Your task to perform on an android device: Search for hotels in Tokyo Image 0: 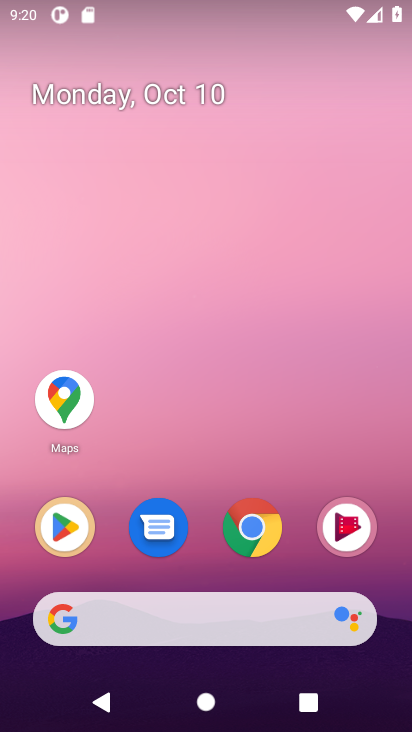
Step 0: click (246, 539)
Your task to perform on an android device: Search for hotels in Tokyo Image 1: 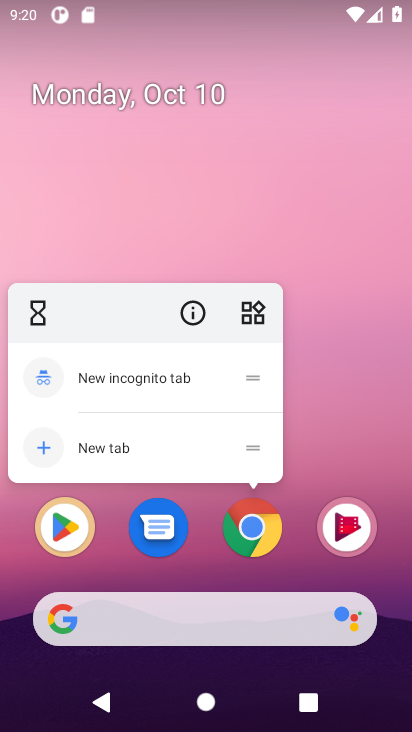
Step 1: click (276, 532)
Your task to perform on an android device: Search for hotels in Tokyo Image 2: 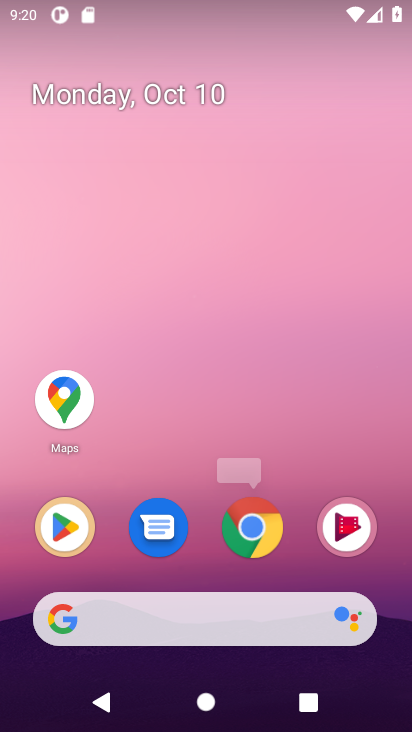
Step 2: click (276, 532)
Your task to perform on an android device: Search for hotels in Tokyo Image 3: 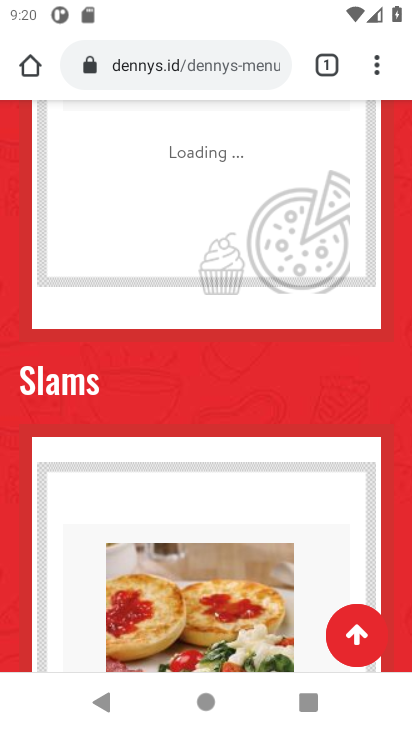
Step 3: click (241, 54)
Your task to perform on an android device: Search for hotels in Tokyo Image 4: 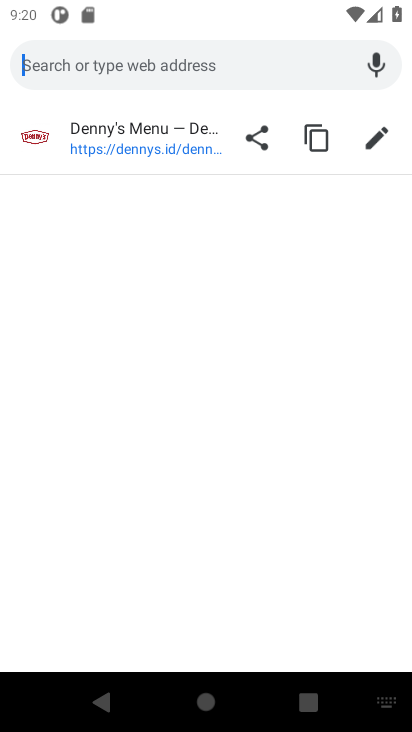
Step 4: type "hotels in Tokyo"
Your task to perform on an android device: Search for hotels in Tokyo Image 5: 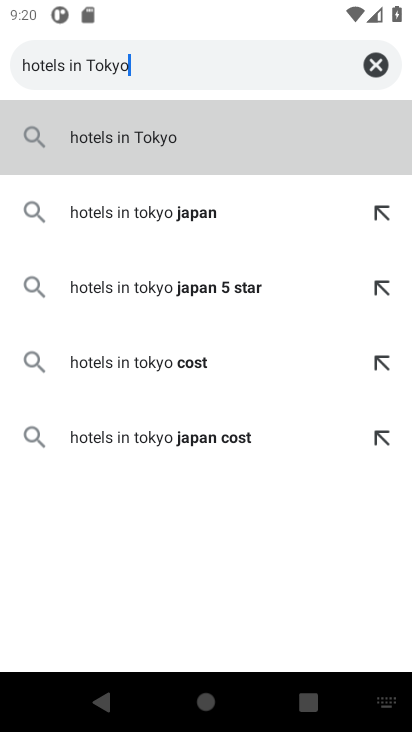
Step 5: type ""
Your task to perform on an android device: Search for hotels in Tokyo Image 6: 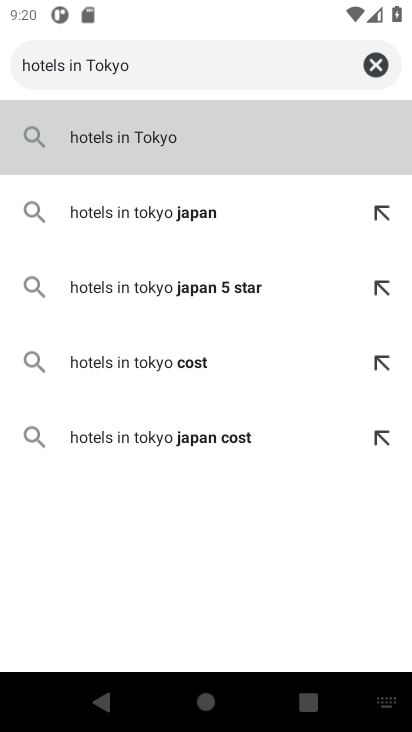
Step 6: click (237, 141)
Your task to perform on an android device: Search for hotels in Tokyo Image 7: 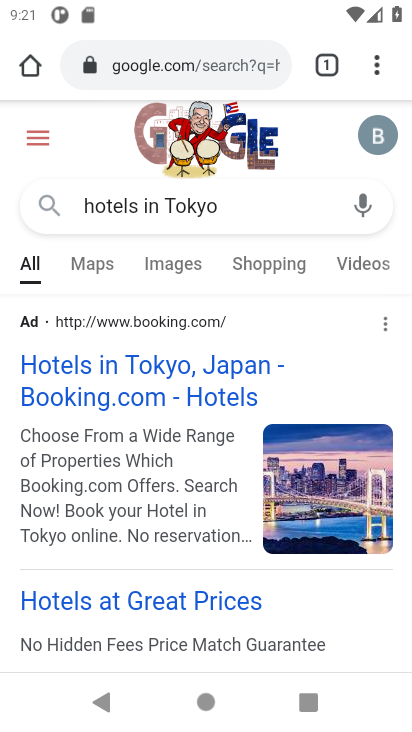
Step 7: drag from (184, 609) to (228, 301)
Your task to perform on an android device: Search for hotels in Tokyo Image 8: 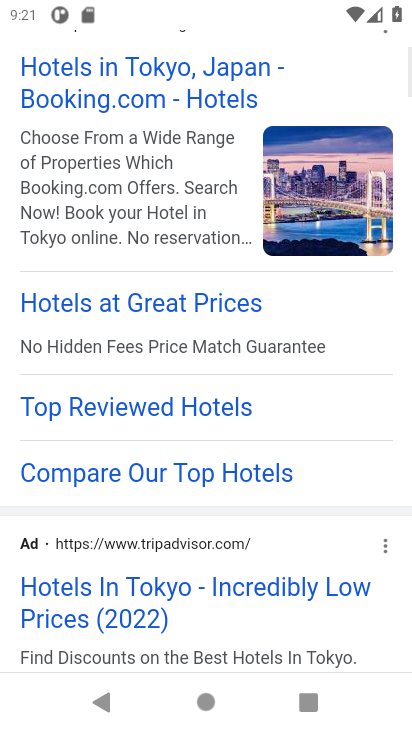
Step 8: drag from (242, 619) to (295, 342)
Your task to perform on an android device: Search for hotels in Tokyo Image 9: 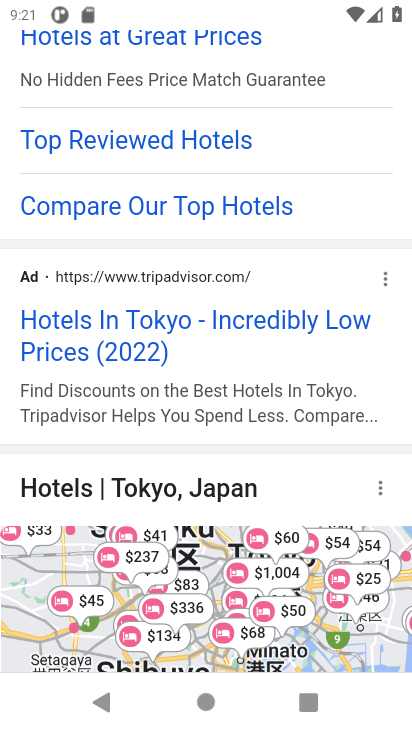
Step 9: drag from (229, 582) to (281, 296)
Your task to perform on an android device: Search for hotels in Tokyo Image 10: 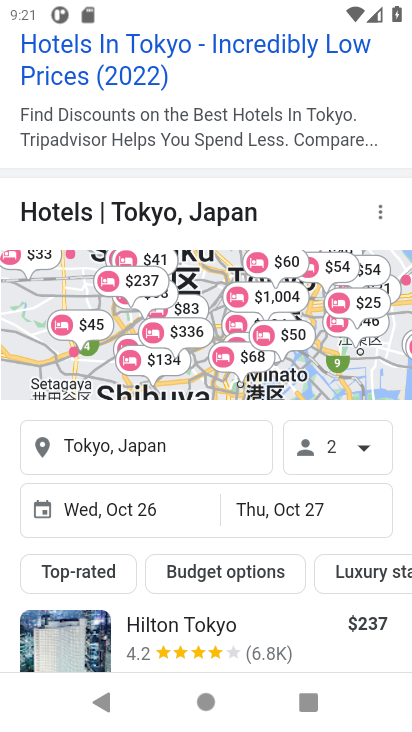
Step 10: click (168, 65)
Your task to perform on an android device: Search for hotels in Tokyo Image 11: 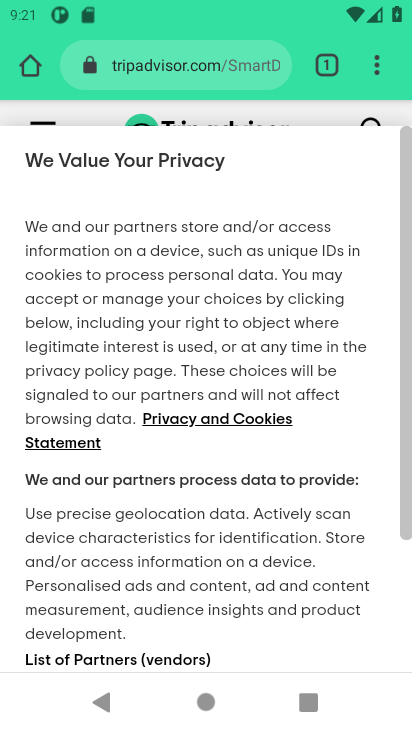
Step 11: drag from (265, 529) to (317, 203)
Your task to perform on an android device: Search for hotels in Tokyo Image 12: 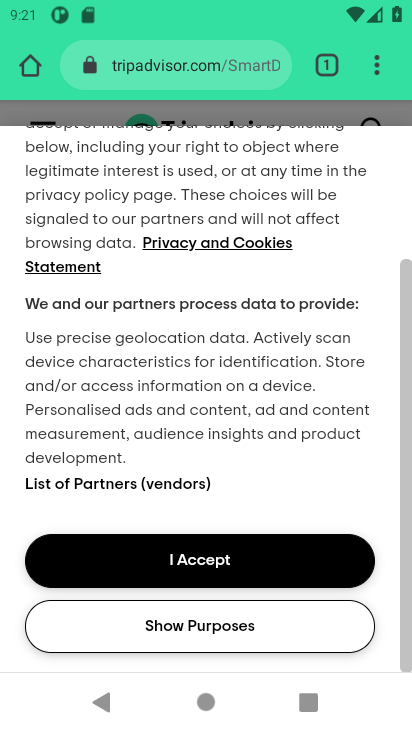
Step 12: click (175, 530)
Your task to perform on an android device: Search for hotels in Tokyo Image 13: 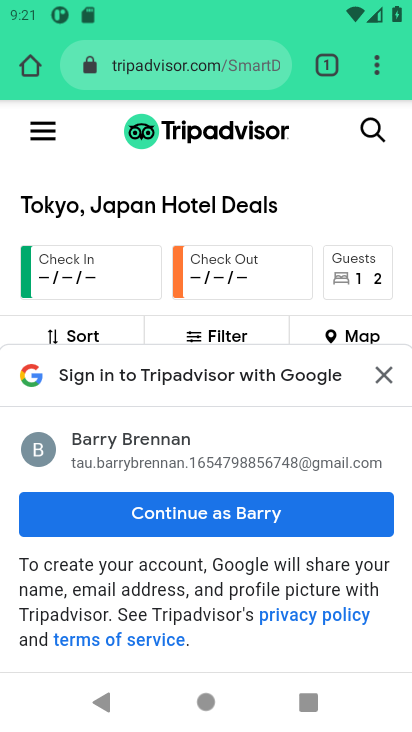
Step 13: drag from (274, 662) to (344, 434)
Your task to perform on an android device: Search for hotels in Tokyo Image 14: 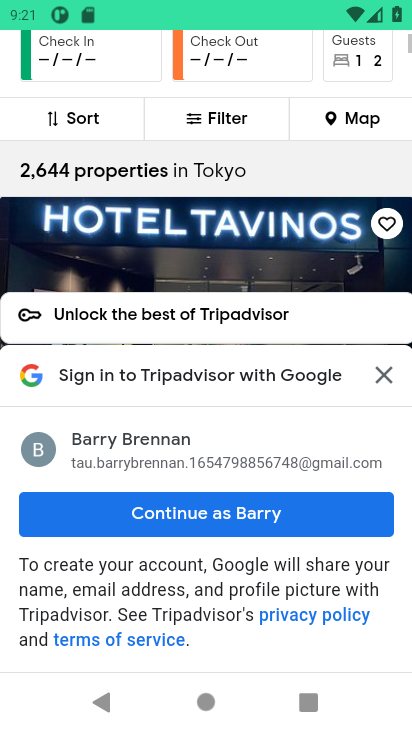
Step 14: click (284, 507)
Your task to perform on an android device: Search for hotels in Tokyo Image 15: 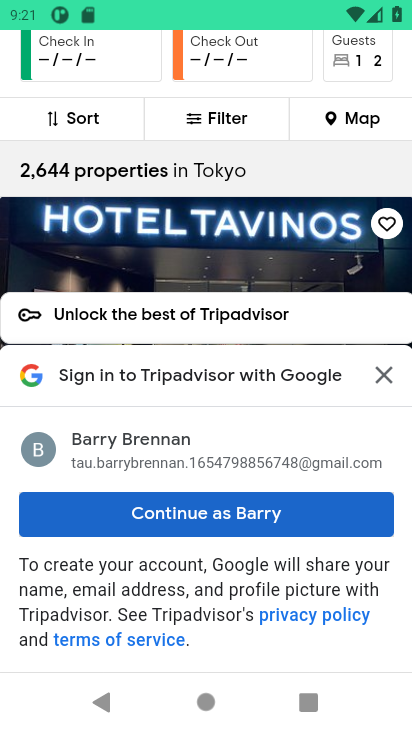
Step 15: click (284, 507)
Your task to perform on an android device: Search for hotels in Tokyo Image 16: 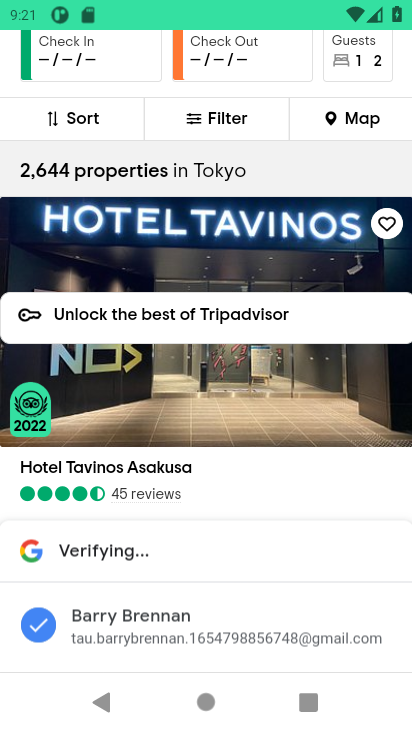
Step 16: drag from (245, 480) to (262, 154)
Your task to perform on an android device: Search for hotels in Tokyo Image 17: 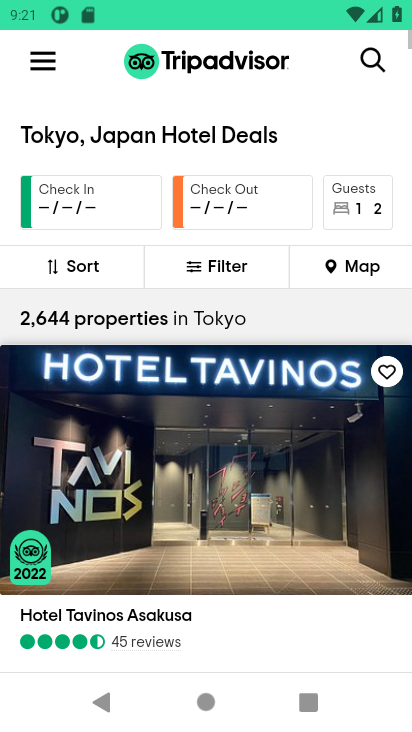
Step 17: drag from (277, 595) to (318, 43)
Your task to perform on an android device: Search for hotels in Tokyo Image 18: 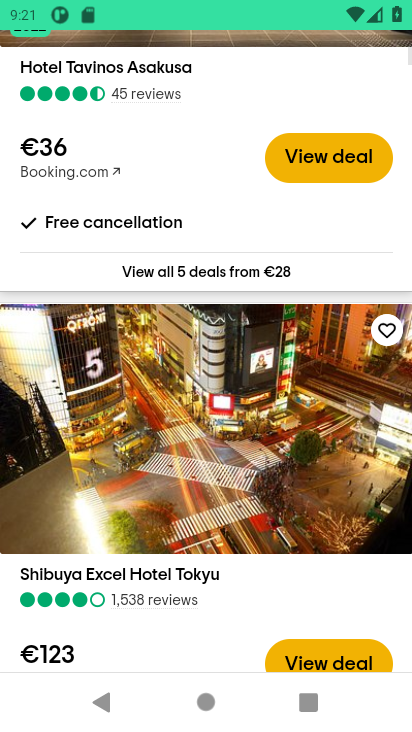
Step 18: drag from (300, 554) to (320, 72)
Your task to perform on an android device: Search for hotels in Tokyo Image 19: 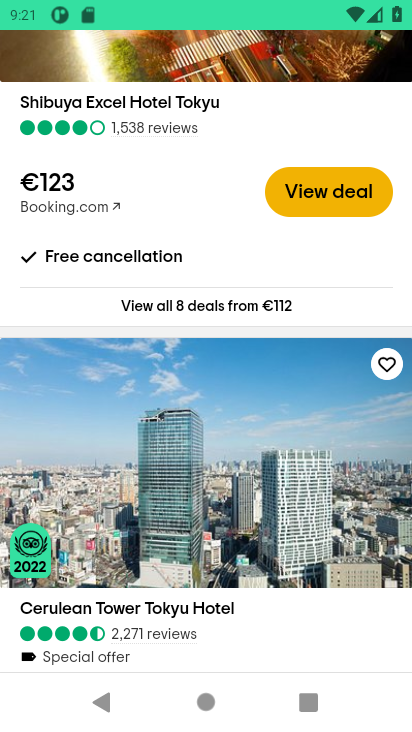
Step 19: drag from (241, 602) to (241, 96)
Your task to perform on an android device: Search for hotels in Tokyo Image 20: 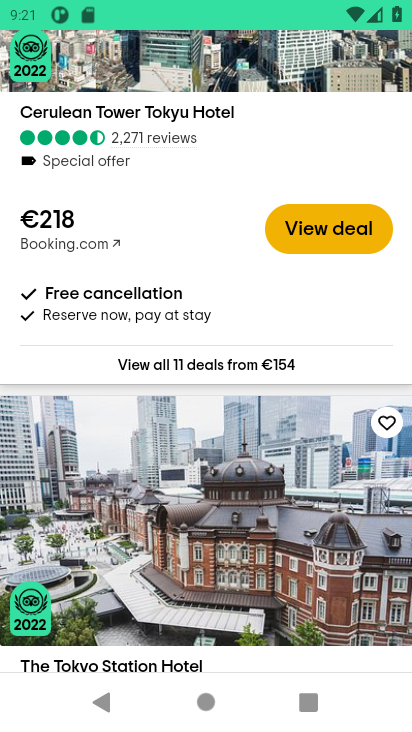
Step 20: drag from (244, 575) to (328, 37)
Your task to perform on an android device: Search for hotels in Tokyo Image 21: 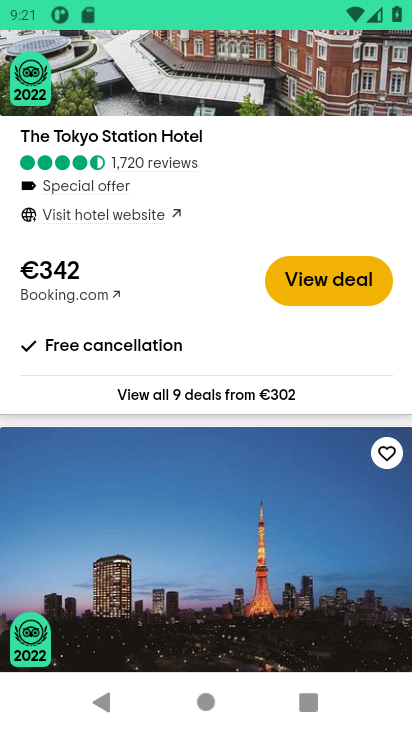
Step 21: drag from (292, 664) to (296, 36)
Your task to perform on an android device: Search for hotels in Tokyo Image 22: 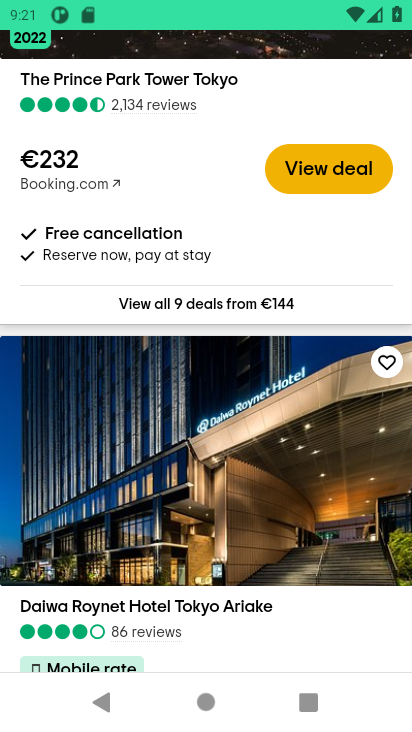
Step 22: drag from (314, 651) to (300, 36)
Your task to perform on an android device: Search for hotels in Tokyo Image 23: 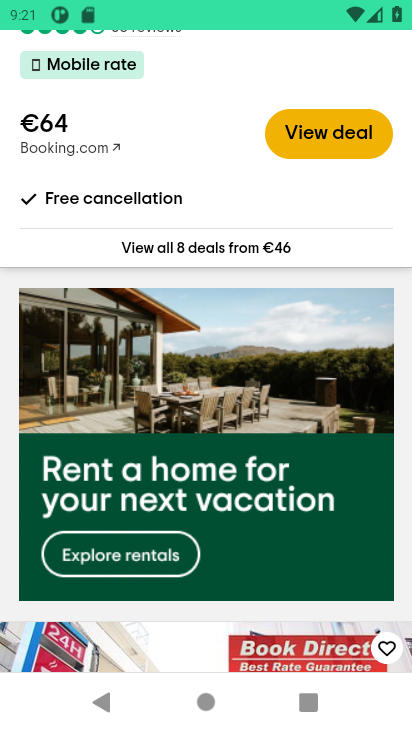
Step 23: drag from (281, 653) to (324, 78)
Your task to perform on an android device: Search for hotels in Tokyo Image 24: 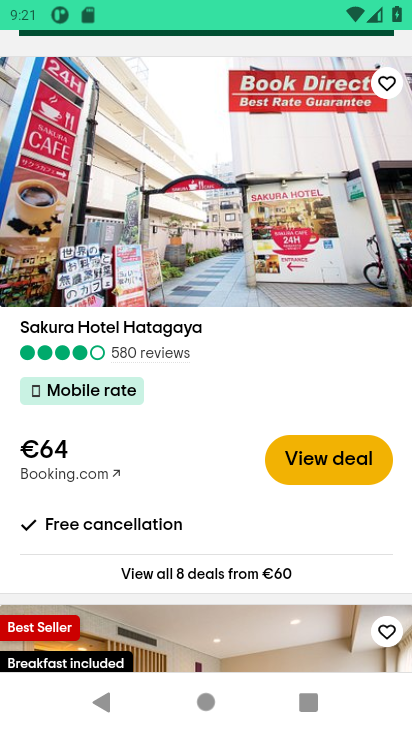
Step 24: drag from (282, 653) to (308, 74)
Your task to perform on an android device: Search for hotels in Tokyo Image 25: 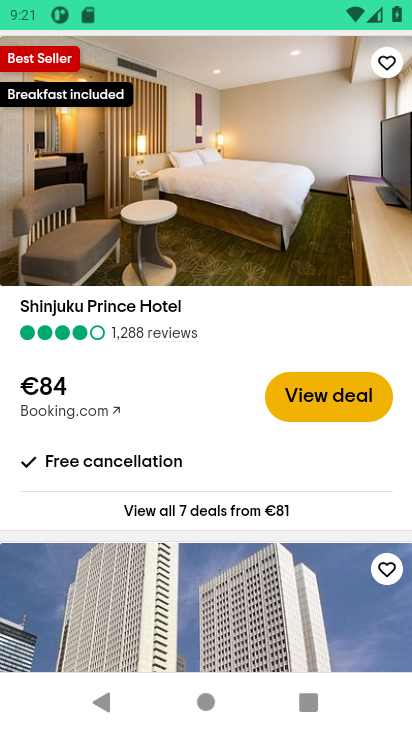
Step 25: press back button
Your task to perform on an android device: Search for hotels in Tokyo Image 26: 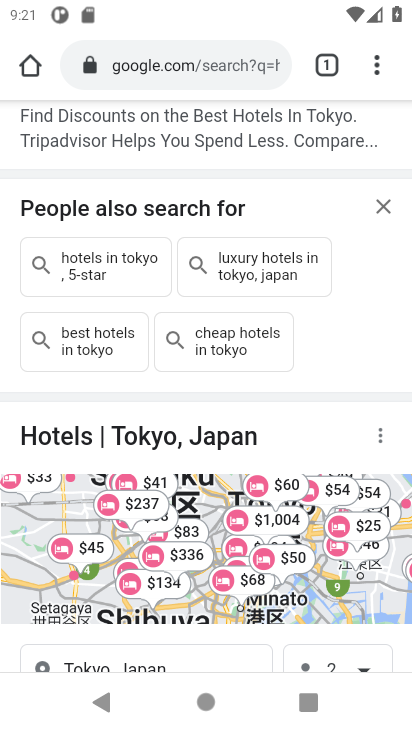
Step 26: drag from (277, 465) to (314, 101)
Your task to perform on an android device: Search for hotels in Tokyo Image 27: 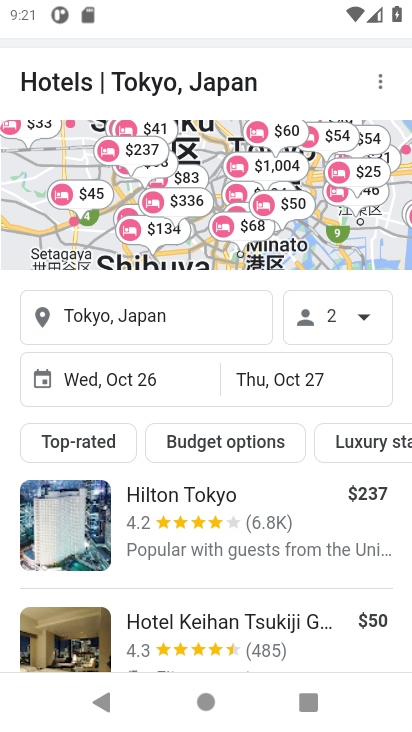
Step 27: drag from (285, 432) to (308, 79)
Your task to perform on an android device: Search for hotels in Tokyo Image 28: 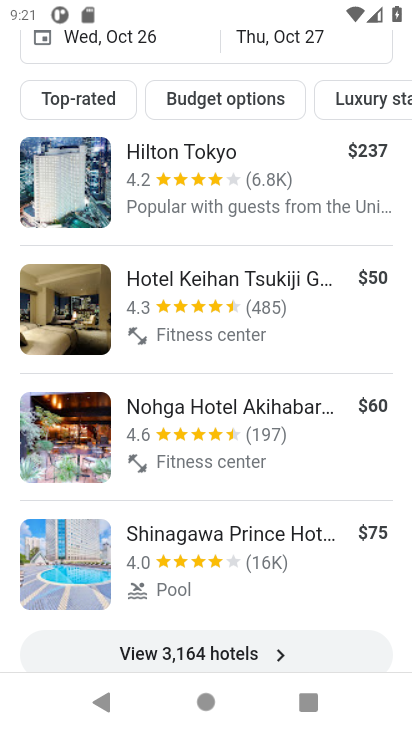
Step 28: drag from (282, 470) to (323, 90)
Your task to perform on an android device: Search for hotels in Tokyo Image 29: 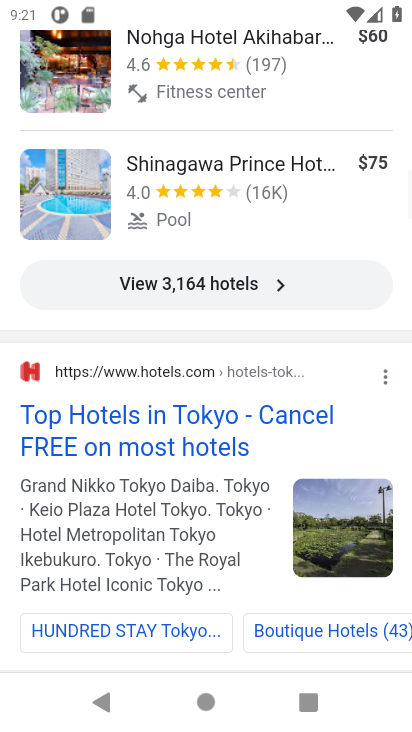
Step 29: drag from (279, 486) to (329, 79)
Your task to perform on an android device: Search for hotels in Tokyo Image 30: 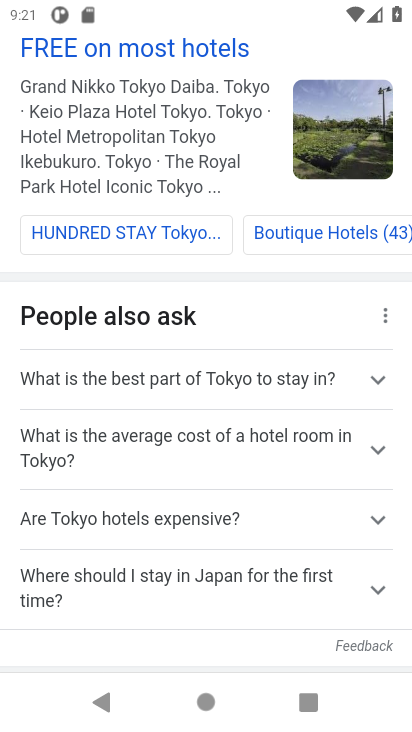
Step 30: click (175, 47)
Your task to perform on an android device: Search for hotels in Tokyo Image 31: 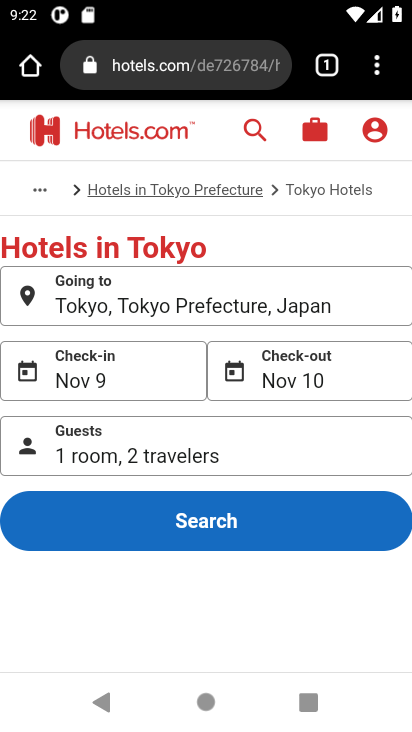
Step 31: drag from (160, 652) to (246, 229)
Your task to perform on an android device: Search for hotels in Tokyo Image 32: 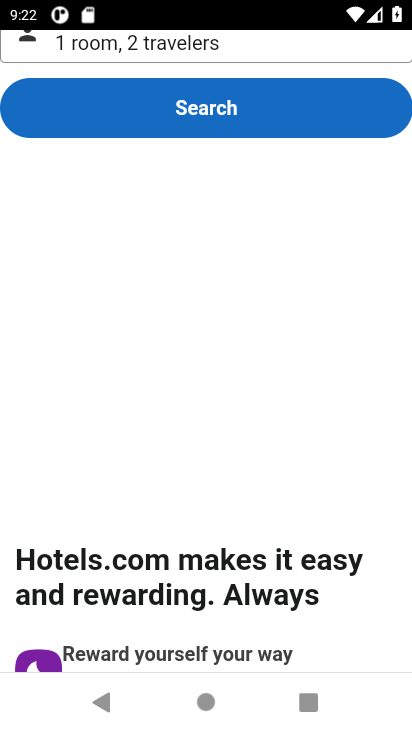
Step 32: drag from (251, 610) to (287, 156)
Your task to perform on an android device: Search for hotels in Tokyo Image 33: 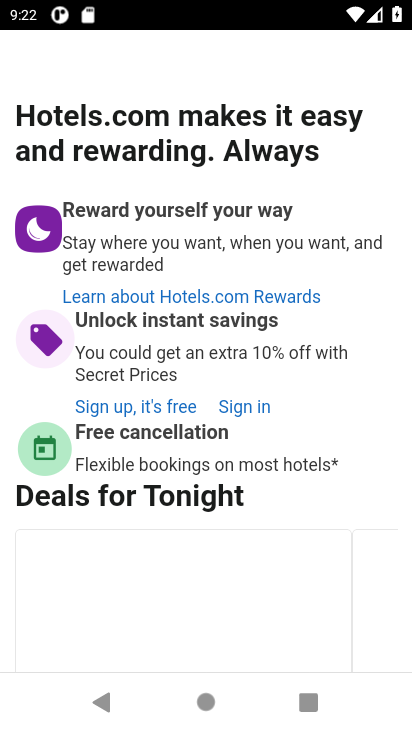
Step 33: drag from (240, 564) to (254, 206)
Your task to perform on an android device: Search for hotels in Tokyo Image 34: 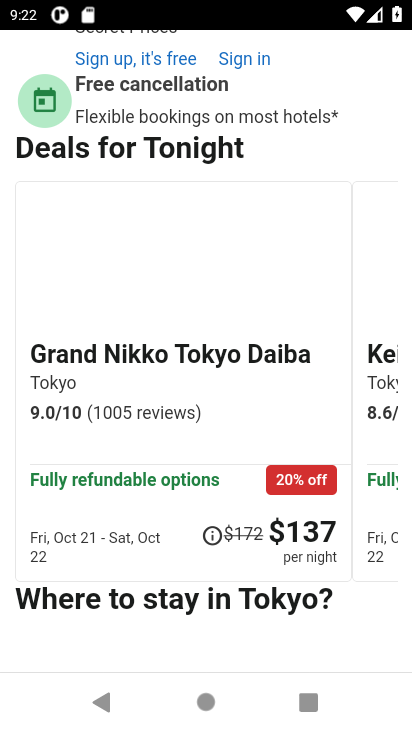
Step 34: click (43, 405)
Your task to perform on an android device: Search for hotels in Tokyo Image 35: 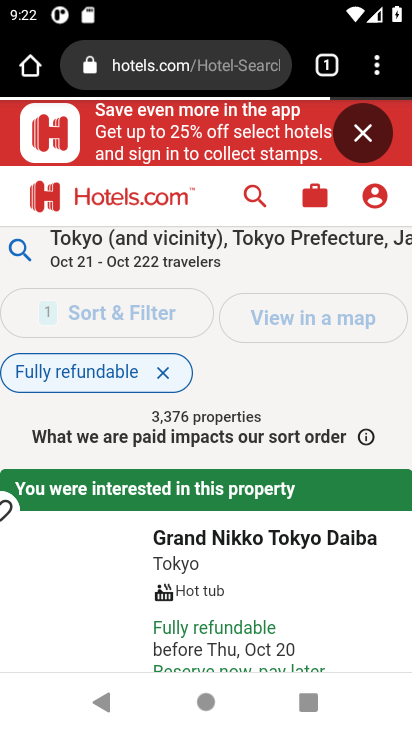
Step 35: drag from (261, 594) to (275, 267)
Your task to perform on an android device: Search for hotels in Tokyo Image 36: 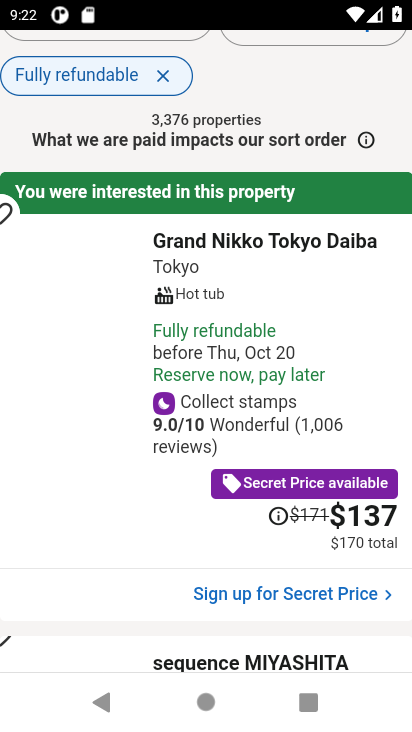
Step 36: drag from (316, 601) to (299, 313)
Your task to perform on an android device: Search for hotels in Tokyo Image 37: 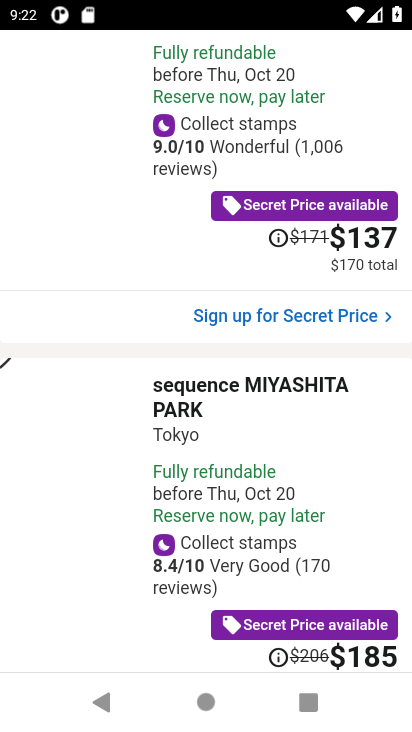
Step 37: drag from (293, 639) to (339, 234)
Your task to perform on an android device: Search for hotels in Tokyo Image 38: 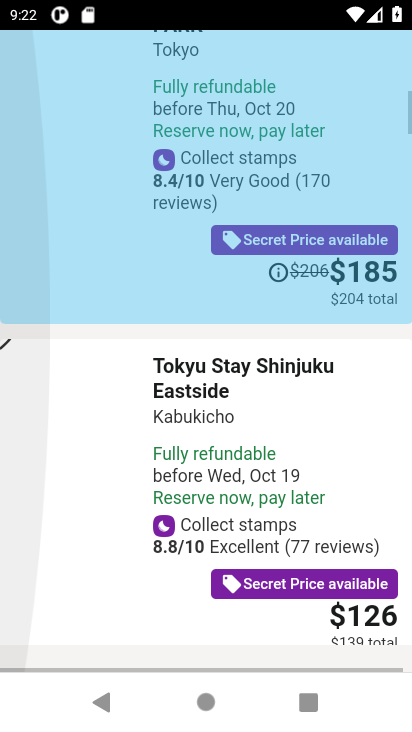
Step 38: drag from (272, 483) to (323, 265)
Your task to perform on an android device: Search for hotels in Tokyo Image 39: 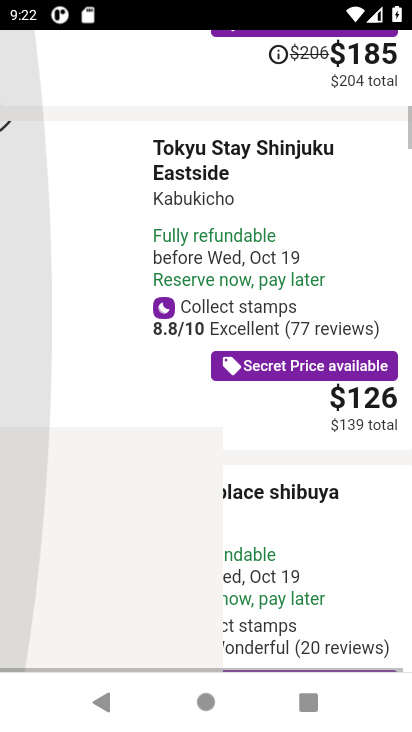
Step 39: drag from (349, 264) to (356, 220)
Your task to perform on an android device: Search for hotels in Tokyo Image 40: 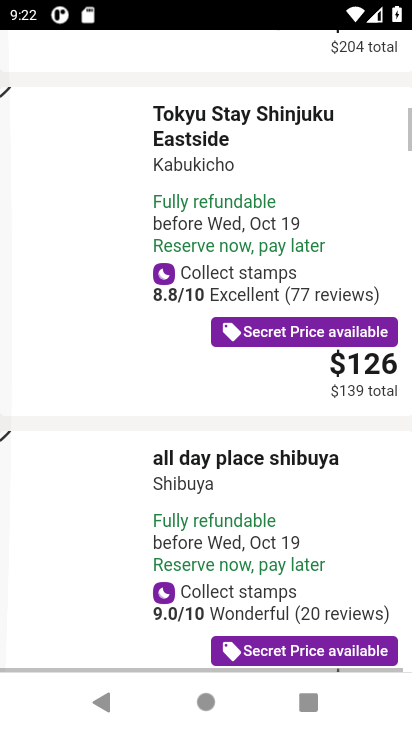
Step 40: drag from (355, 313) to (385, 145)
Your task to perform on an android device: Search for hotels in Tokyo Image 41: 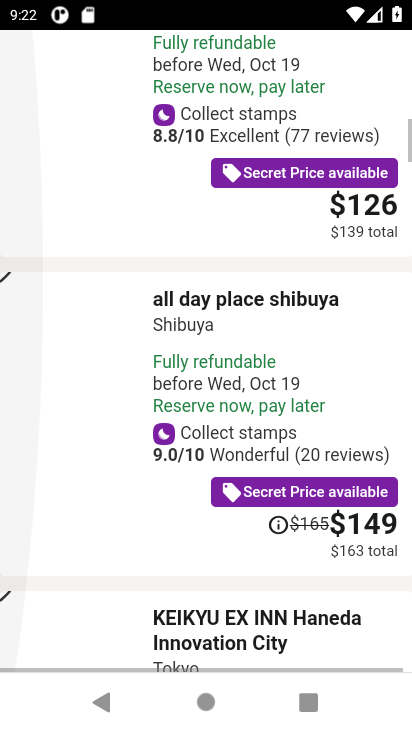
Step 41: drag from (357, 359) to (394, 148)
Your task to perform on an android device: Search for hotels in Tokyo Image 42: 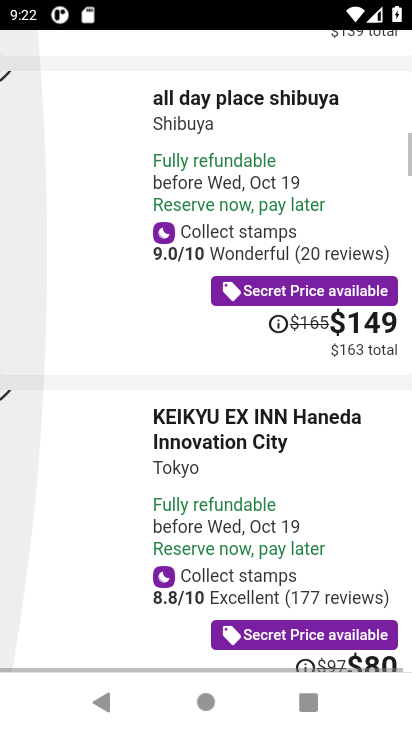
Step 42: drag from (402, 318) to (410, 224)
Your task to perform on an android device: Search for hotels in Tokyo Image 43: 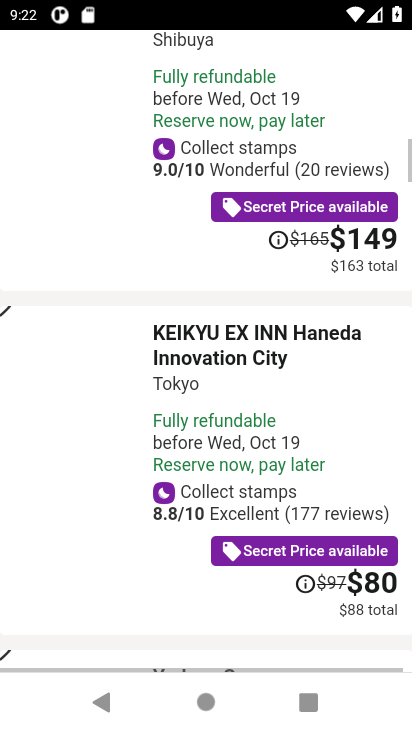
Step 43: click (336, 395)
Your task to perform on an android device: Search for hotels in Tokyo Image 44: 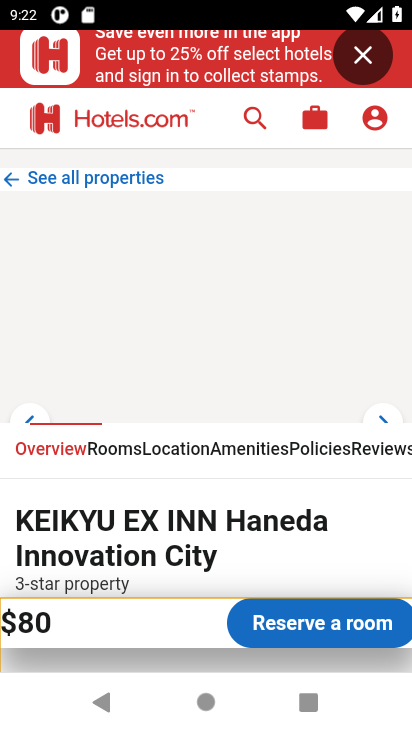
Step 44: drag from (310, 500) to (313, 218)
Your task to perform on an android device: Search for hotels in Tokyo Image 45: 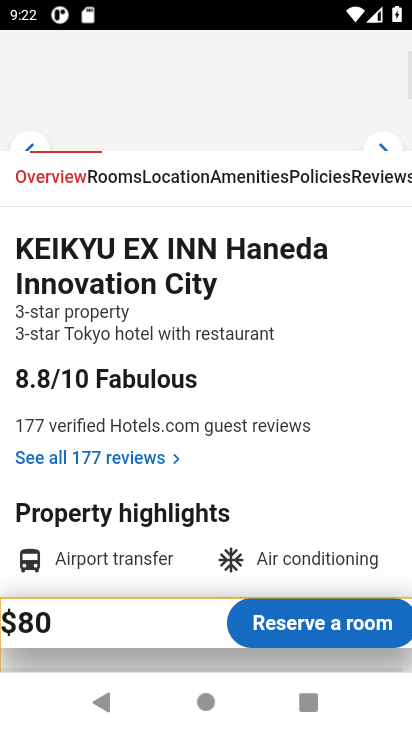
Step 45: drag from (287, 439) to (326, 65)
Your task to perform on an android device: Search for hotels in Tokyo Image 46: 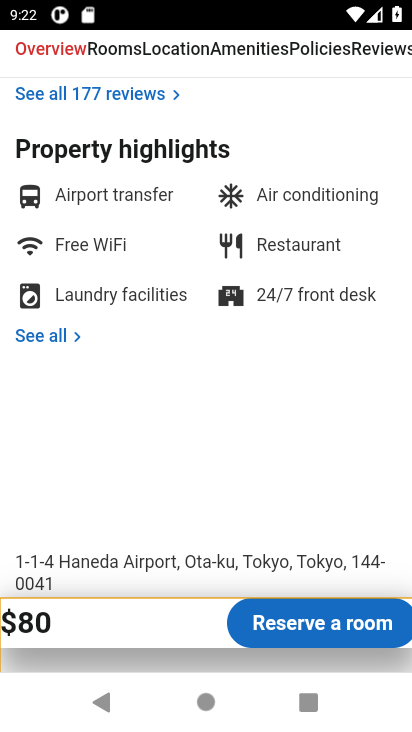
Step 46: drag from (192, 496) to (210, 200)
Your task to perform on an android device: Search for hotels in Tokyo Image 47: 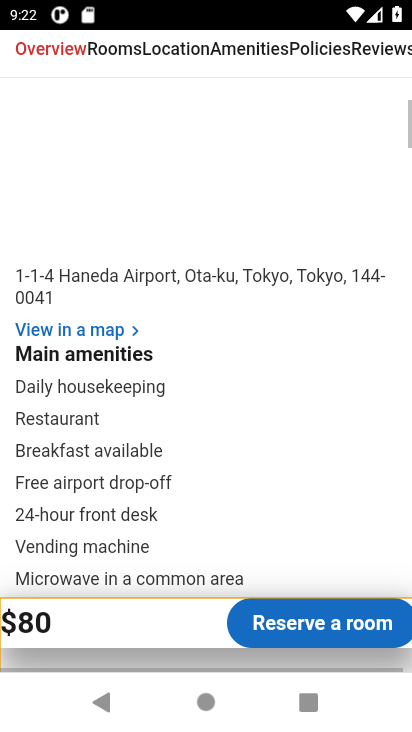
Step 47: drag from (173, 428) to (216, 171)
Your task to perform on an android device: Search for hotels in Tokyo Image 48: 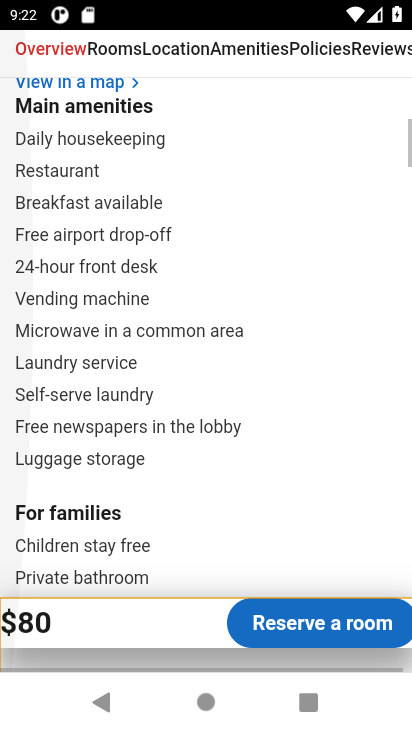
Step 48: drag from (197, 410) to (257, 211)
Your task to perform on an android device: Search for hotels in Tokyo Image 49: 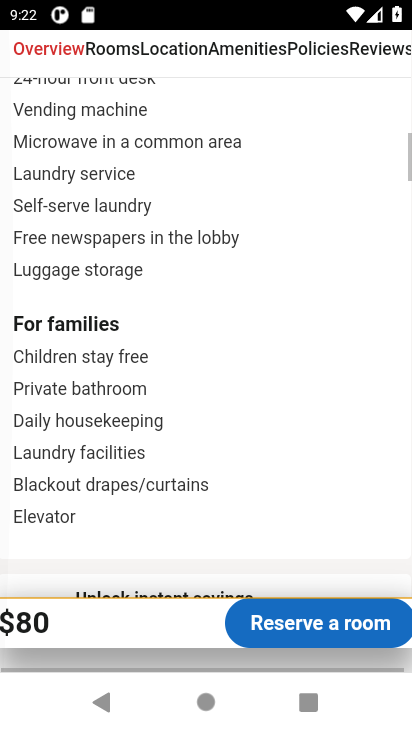
Step 49: drag from (246, 466) to (298, 164)
Your task to perform on an android device: Search for hotels in Tokyo Image 50: 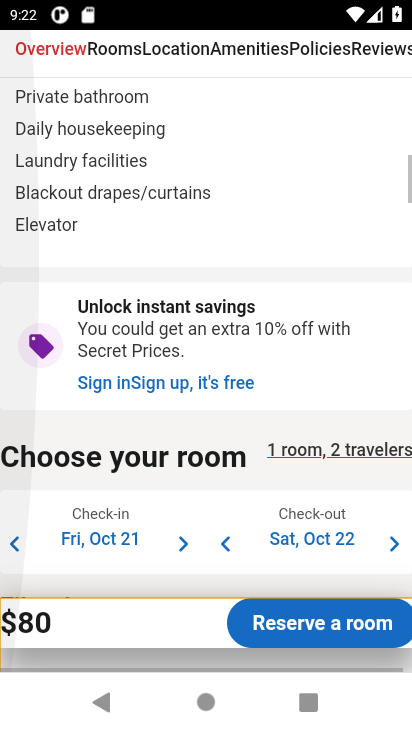
Step 50: drag from (268, 467) to (301, 136)
Your task to perform on an android device: Search for hotels in Tokyo Image 51: 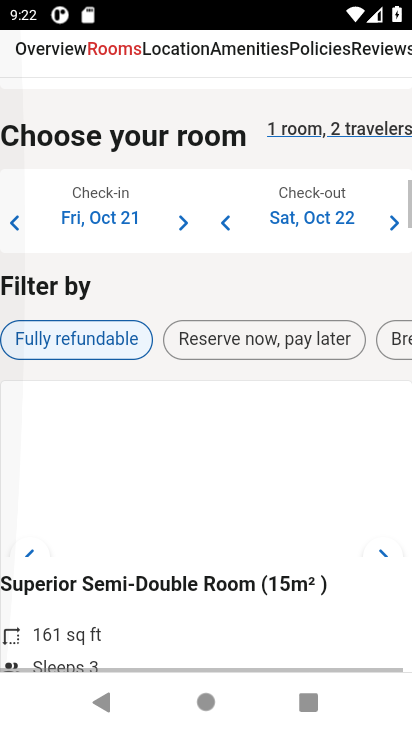
Step 51: drag from (286, 454) to (325, 154)
Your task to perform on an android device: Search for hotels in Tokyo Image 52: 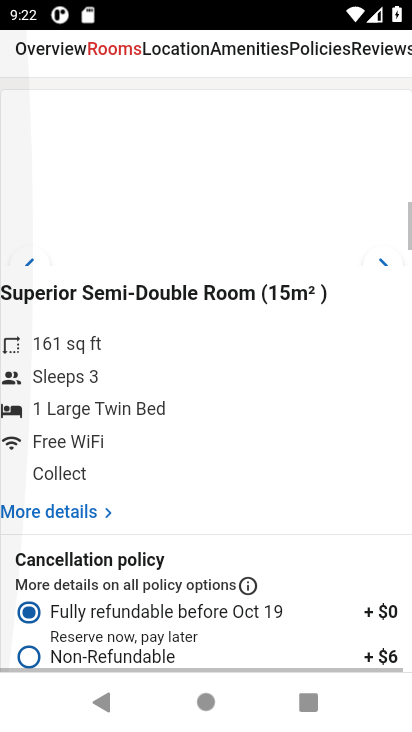
Step 52: drag from (295, 450) to (310, 217)
Your task to perform on an android device: Search for hotels in Tokyo Image 53: 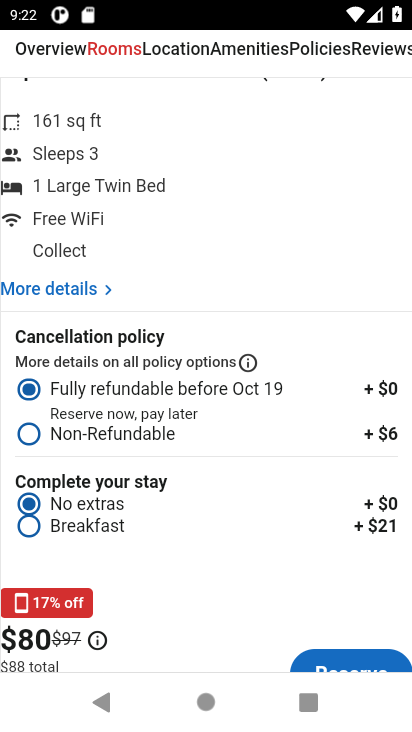
Step 53: press back button
Your task to perform on an android device: Search for hotels in Tokyo Image 54: 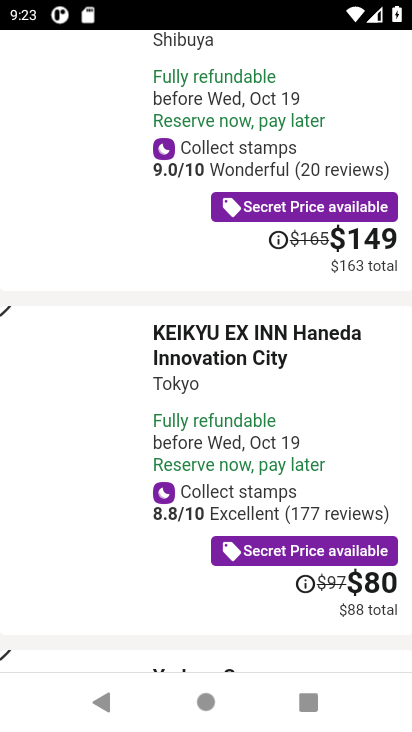
Step 54: press back button
Your task to perform on an android device: Search for hotels in Tokyo Image 55: 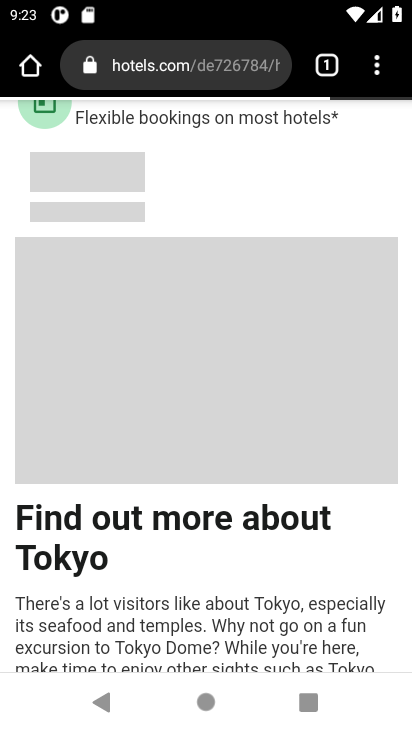
Step 55: drag from (260, 521) to (285, 184)
Your task to perform on an android device: Search for hotels in Tokyo Image 56: 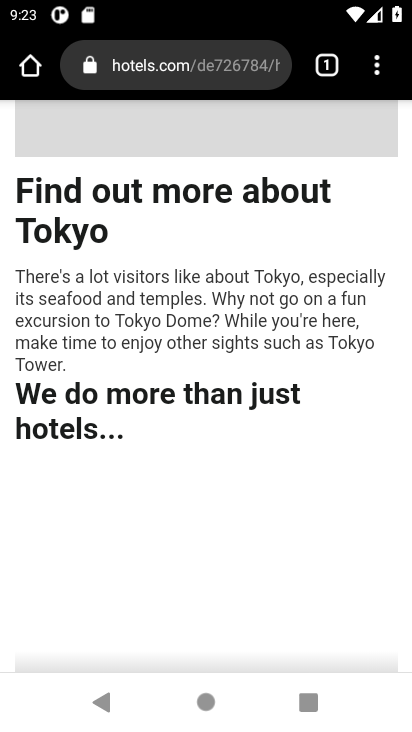
Step 56: press back button
Your task to perform on an android device: Search for hotels in Tokyo Image 57: 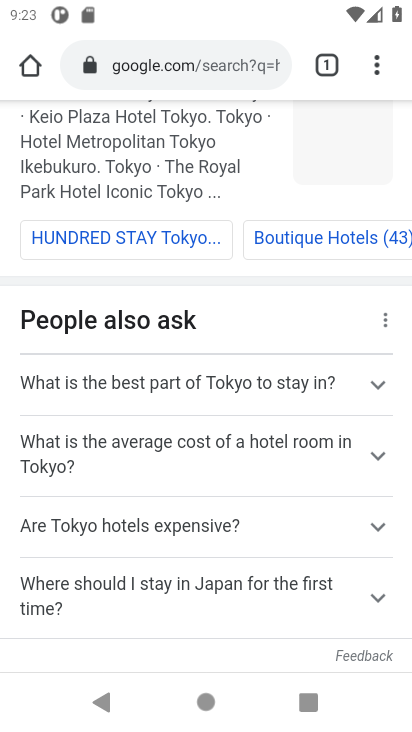
Step 57: drag from (142, 594) to (149, 116)
Your task to perform on an android device: Search for hotels in Tokyo Image 58: 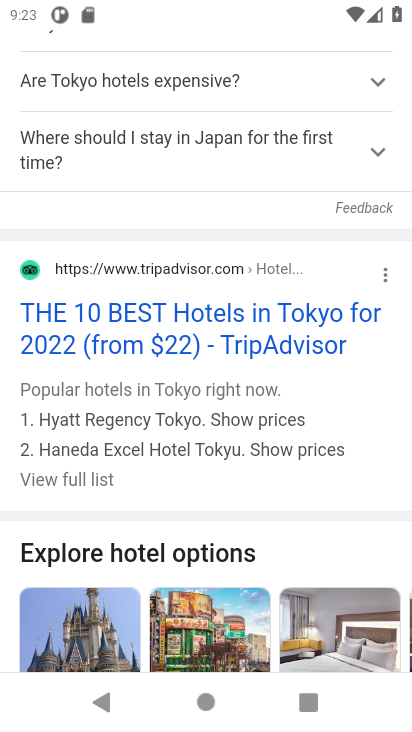
Step 58: click (123, 323)
Your task to perform on an android device: Search for hotels in Tokyo Image 59: 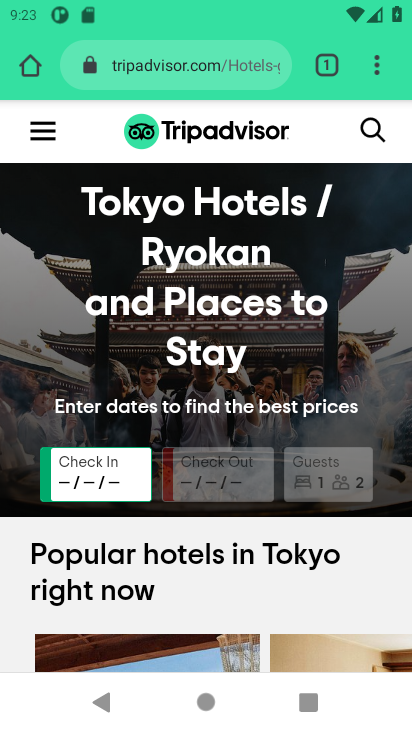
Step 59: drag from (190, 594) to (237, 171)
Your task to perform on an android device: Search for hotels in Tokyo Image 60: 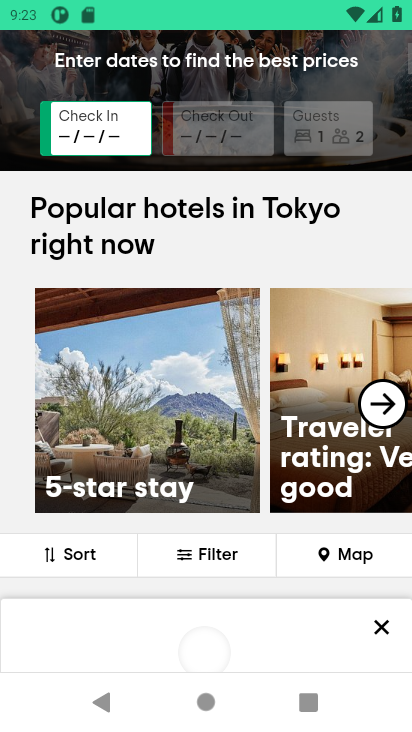
Step 60: drag from (243, 547) to (267, 176)
Your task to perform on an android device: Search for hotels in Tokyo Image 61: 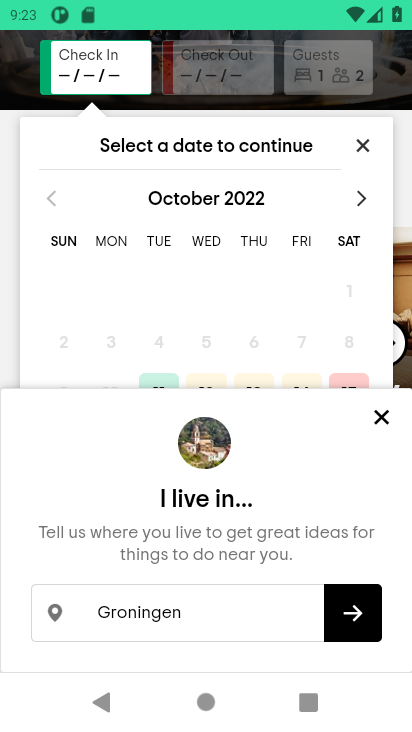
Step 61: click (384, 421)
Your task to perform on an android device: Search for hotels in Tokyo Image 62: 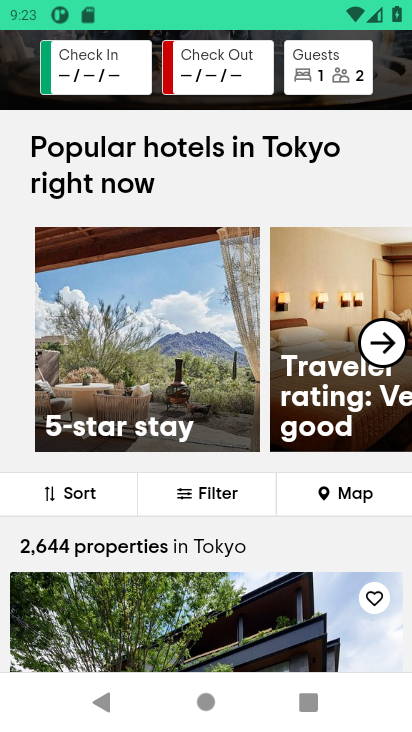
Step 62: drag from (369, 418) to (2, 409)
Your task to perform on an android device: Search for hotels in Tokyo Image 63: 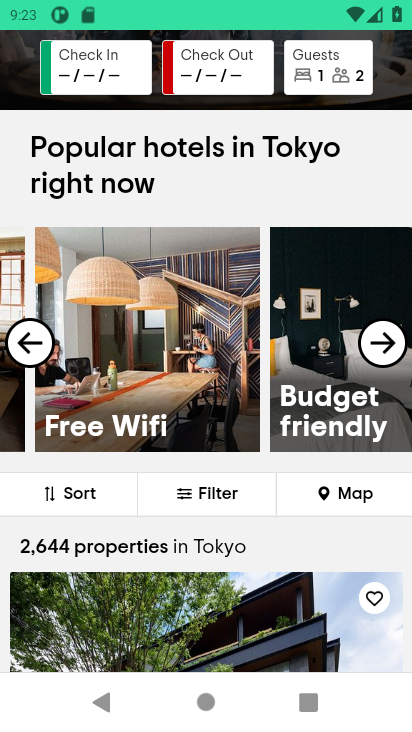
Step 63: click (400, 339)
Your task to perform on an android device: Search for hotels in Tokyo Image 64: 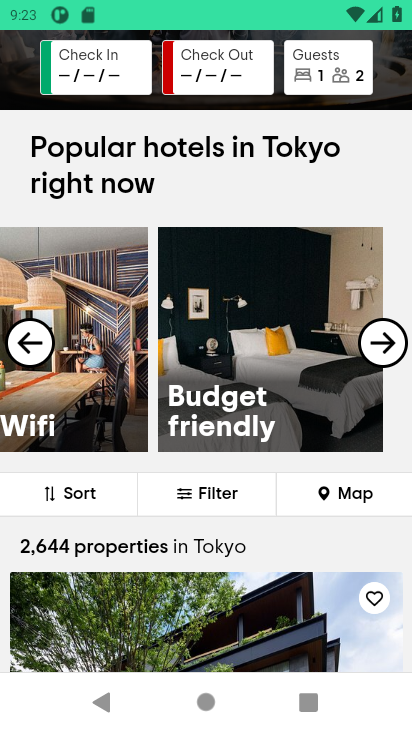
Step 64: click (400, 339)
Your task to perform on an android device: Search for hotels in Tokyo Image 65: 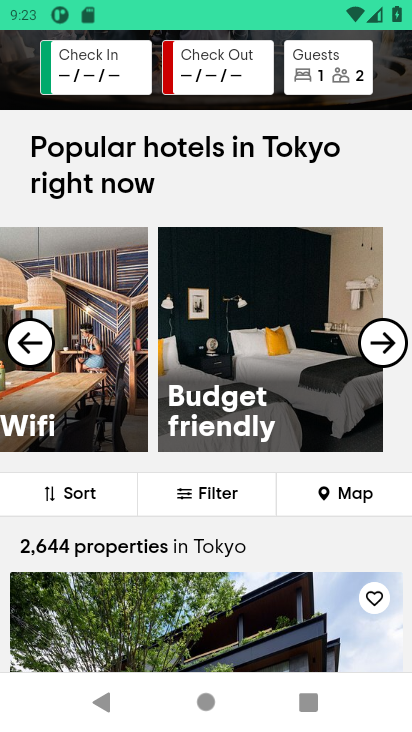
Step 65: click (400, 339)
Your task to perform on an android device: Search for hotels in Tokyo Image 66: 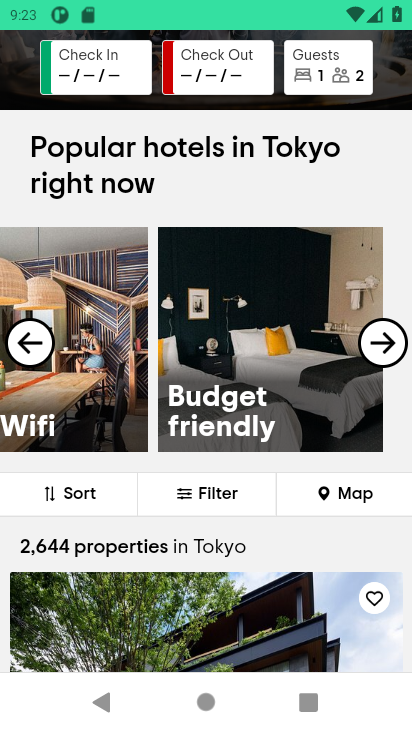
Step 66: click (396, 343)
Your task to perform on an android device: Search for hotels in Tokyo Image 67: 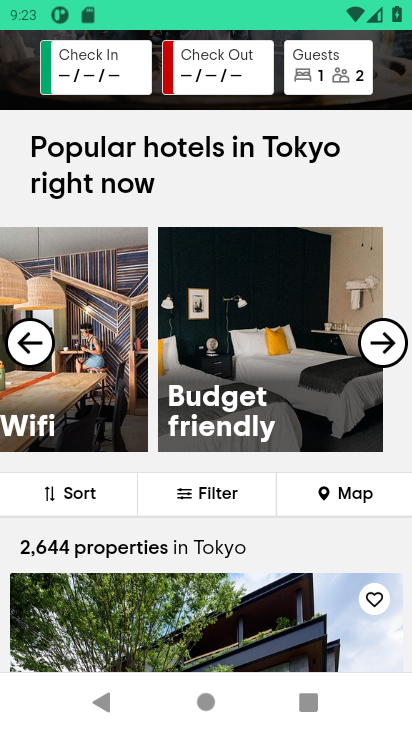
Step 67: task complete